Your task to perform on an android device: turn on javascript in the chrome app Image 0: 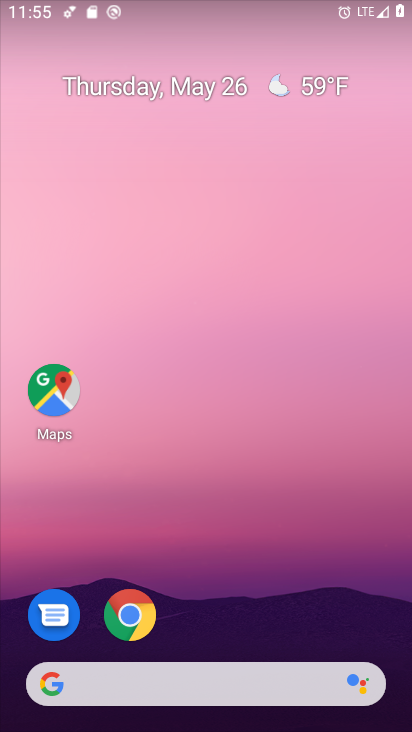
Step 0: drag from (326, 725) to (318, 469)
Your task to perform on an android device: turn on javascript in the chrome app Image 1: 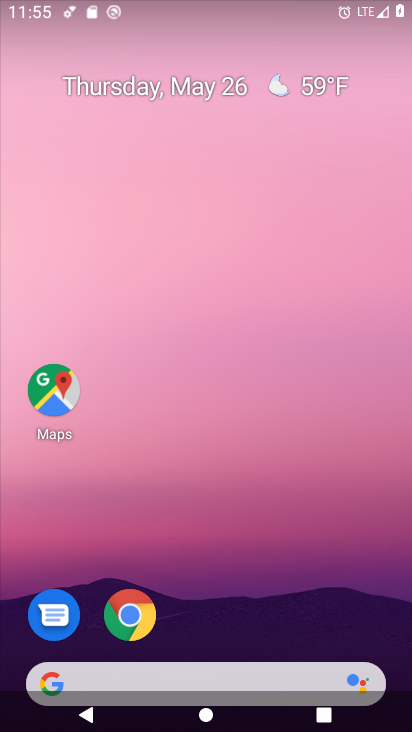
Step 1: drag from (262, 714) to (256, 464)
Your task to perform on an android device: turn on javascript in the chrome app Image 2: 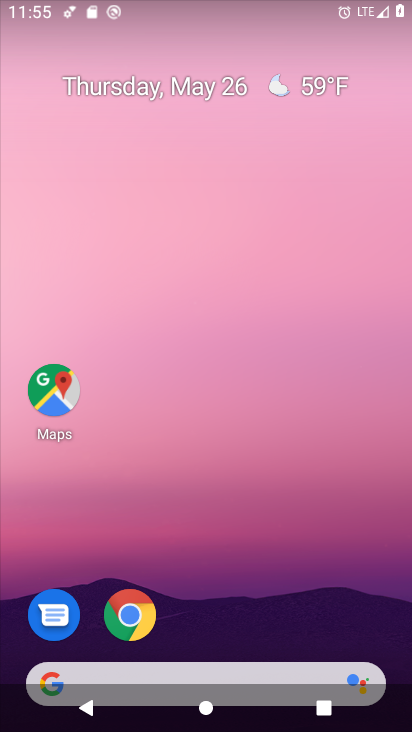
Step 2: drag from (267, 718) to (258, 448)
Your task to perform on an android device: turn on javascript in the chrome app Image 3: 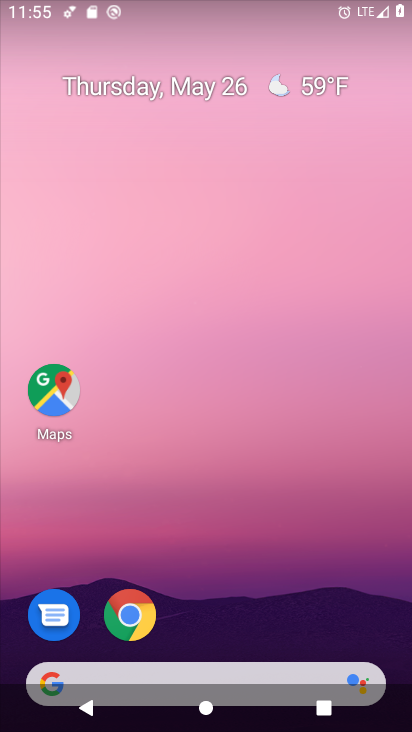
Step 3: drag from (273, 723) to (214, 391)
Your task to perform on an android device: turn on javascript in the chrome app Image 4: 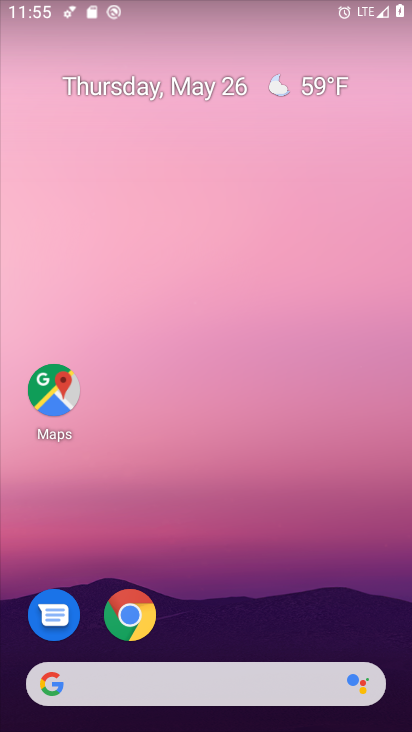
Step 4: drag from (258, 691) to (266, 446)
Your task to perform on an android device: turn on javascript in the chrome app Image 5: 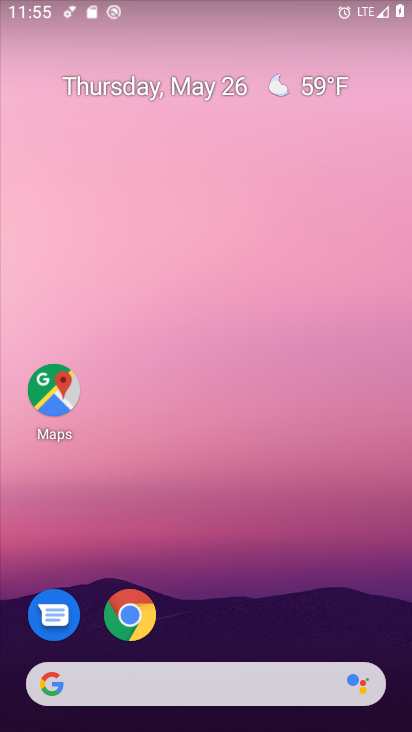
Step 5: drag from (256, 711) to (267, 355)
Your task to perform on an android device: turn on javascript in the chrome app Image 6: 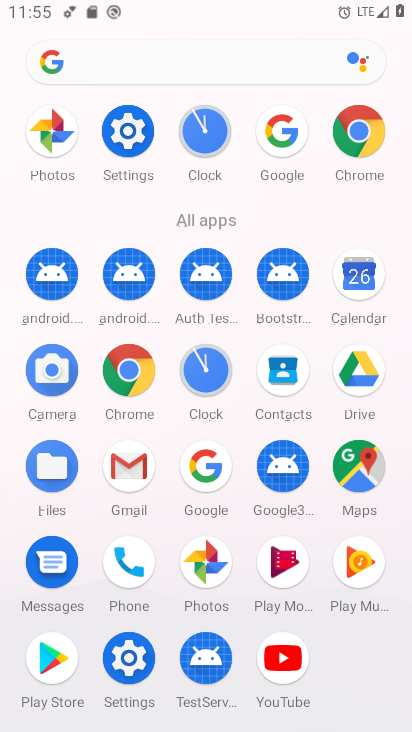
Step 6: click (352, 137)
Your task to perform on an android device: turn on javascript in the chrome app Image 7: 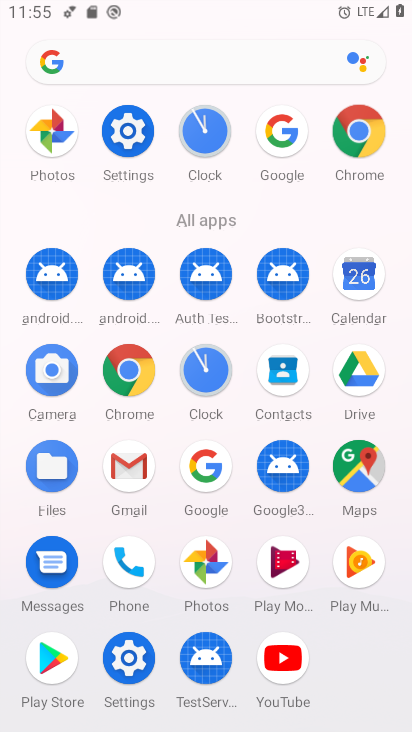
Step 7: click (359, 132)
Your task to perform on an android device: turn on javascript in the chrome app Image 8: 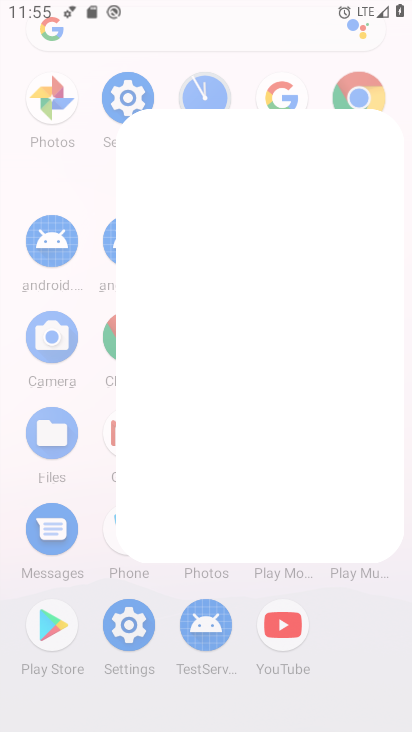
Step 8: click (359, 132)
Your task to perform on an android device: turn on javascript in the chrome app Image 9: 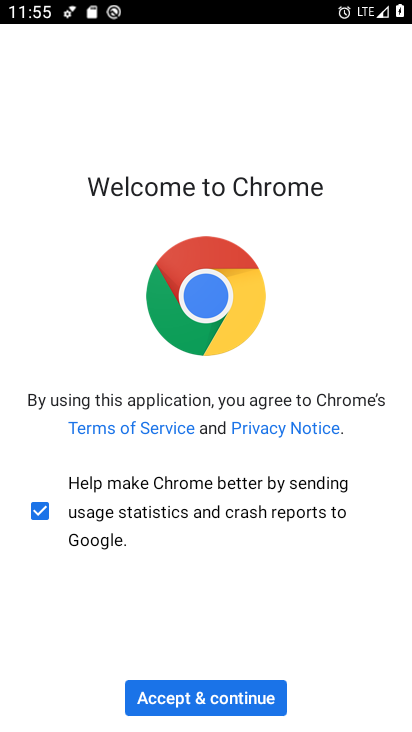
Step 9: click (215, 693)
Your task to perform on an android device: turn on javascript in the chrome app Image 10: 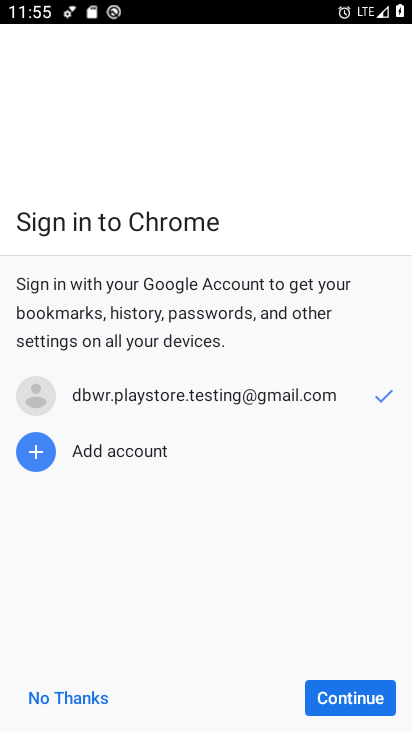
Step 10: click (216, 694)
Your task to perform on an android device: turn on javascript in the chrome app Image 11: 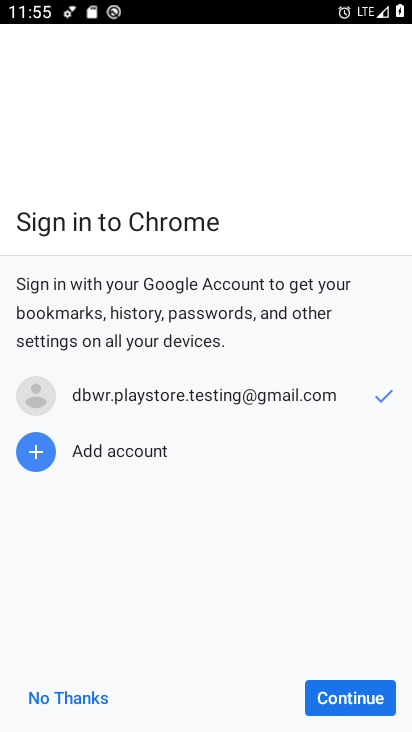
Step 11: click (219, 687)
Your task to perform on an android device: turn on javascript in the chrome app Image 12: 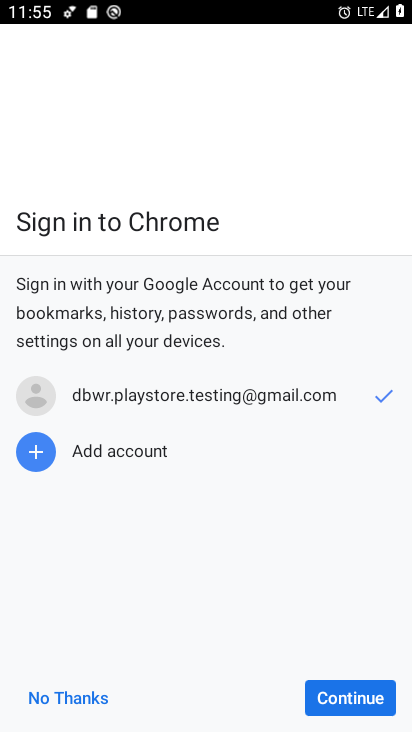
Step 12: click (340, 683)
Your task to perform on an android device: turn on javascript in the chrome app Image 13: 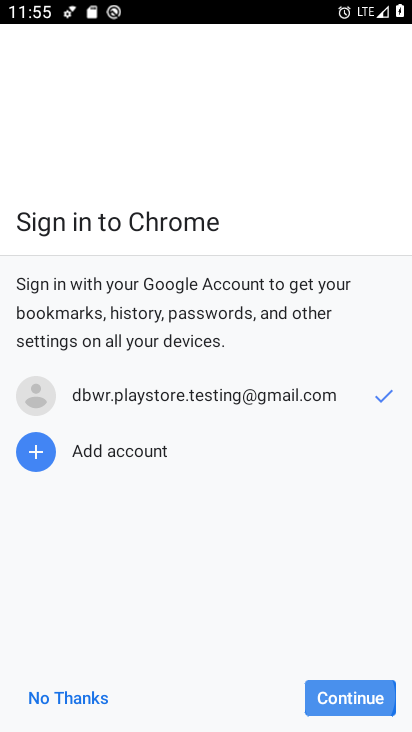
Step 13: click (342, 681)
Your task to perform on an android device: turn on javascript in the chrome app Image 14: 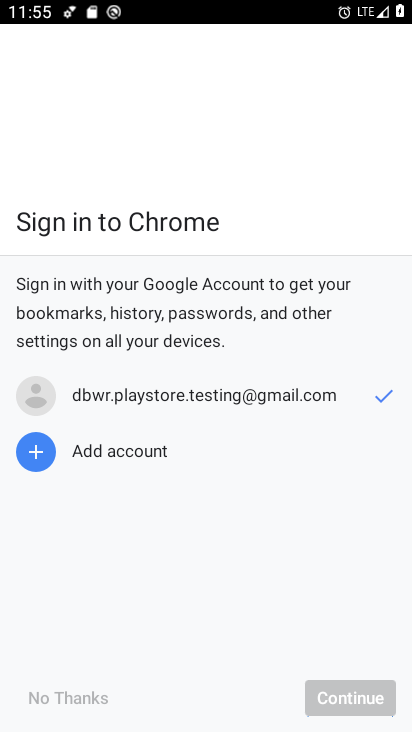
Step 14: click (343, 680)
Your task to perform on an android device: turn on javascript in the chrome app Image 15: 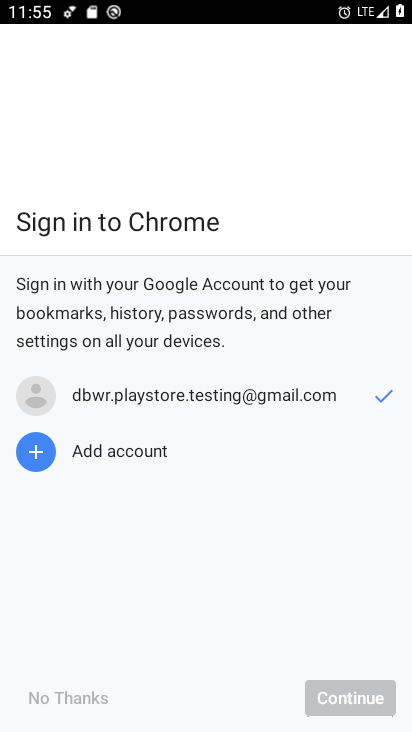
Step 15: click (344, 687)
Your task to perform on an android device: turn on javascript in the chrome app Image 16: 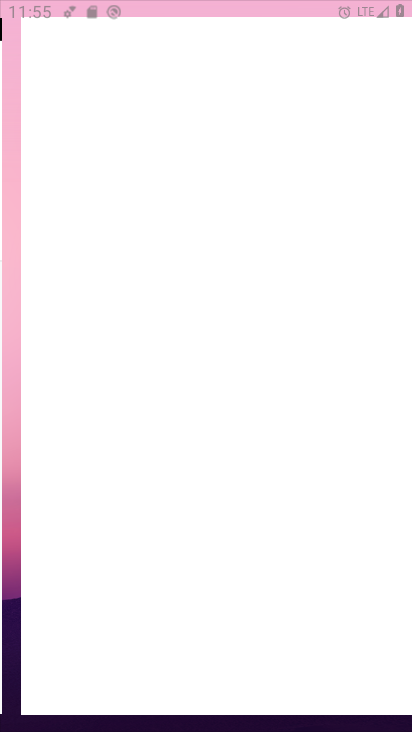
Step 16: click (347, 694)
Your task to perform on an android device: turn on javascript in the chrome app Image 17: 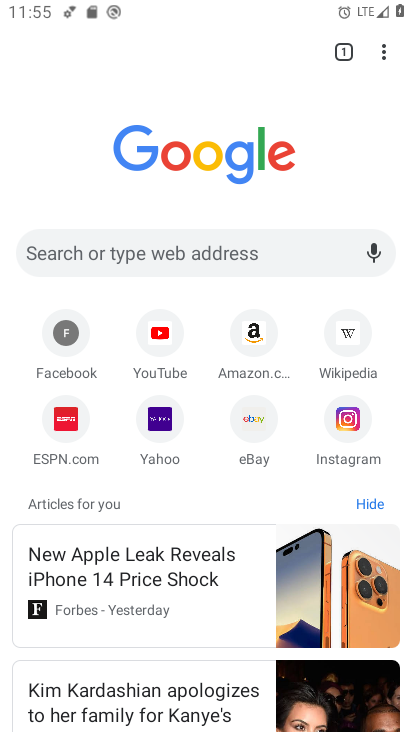
Step 17: drag from (384, 59) to (192, 439)
Your task to perform on an android device: turn on javascript in the chrome app Image 18: 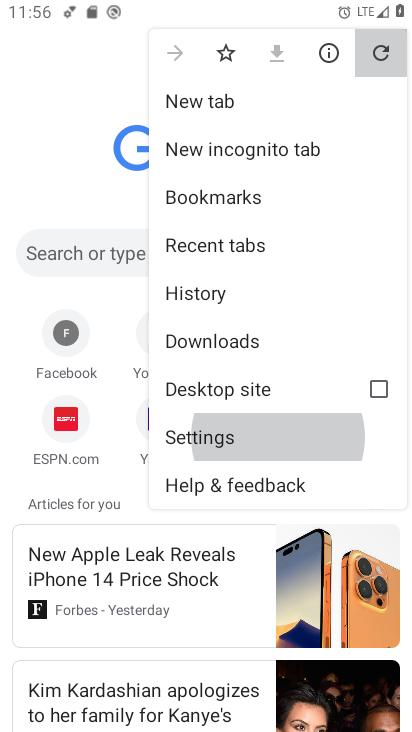
Step 18: click (191, 440)
Your task to perform on an android device: turn on javascript in the chrome app Image 19: 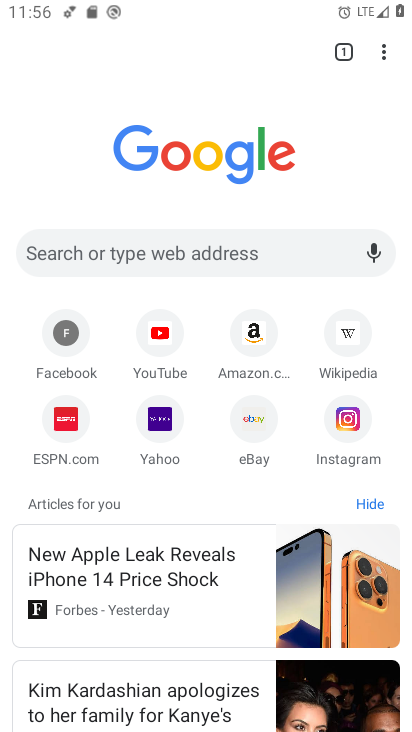
Step 19: click (191, 440)
Your task to perform on an android device: turn on javascript in the chrome app Image 20: 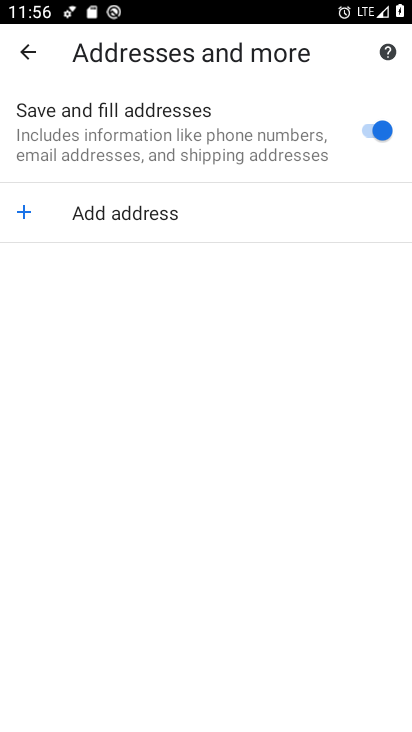
Step 20: click (36, 54)
Your task to perform on an android device: turn on javascript in the chrome app Image 21: 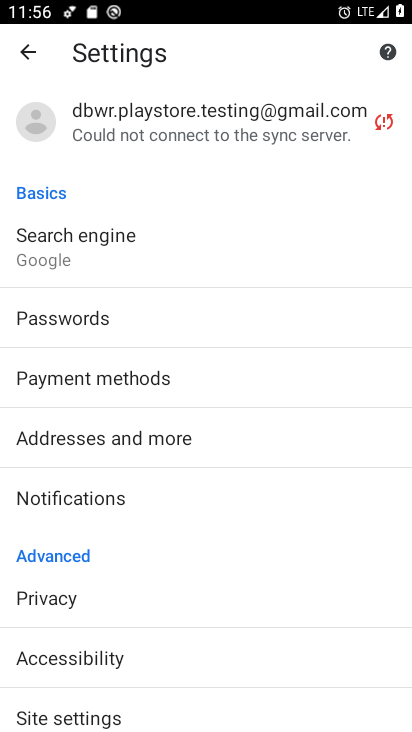
Step 21: drag from (104, 604) to (136, 341)
Your task to perform on an android device: turn on javascript in the chrome app Image 22: 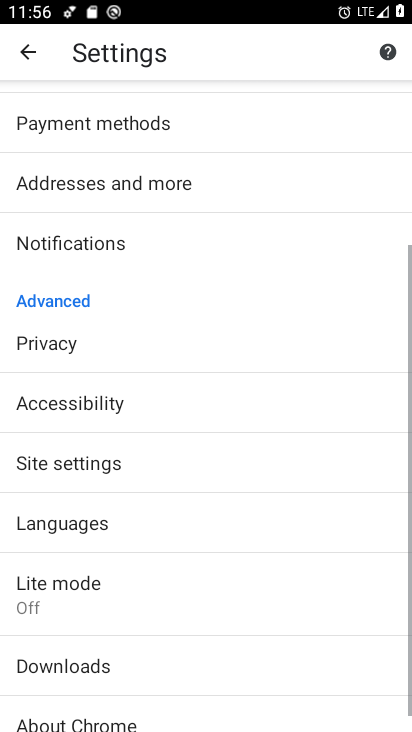
Step 22: drag from (136, 524) to (136, 104)
Your task to perform on an android device: turn on javascript in the chrome app Image 23: 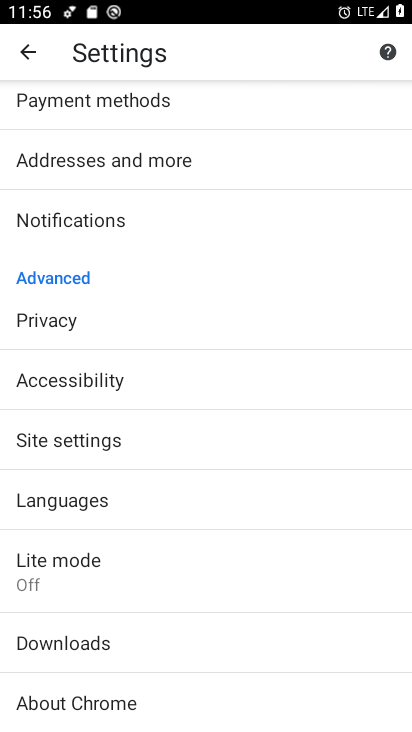
Step 23: click (58, 441)
Your task to perform on an android device: turn on javascript in the chrome app Image 24: 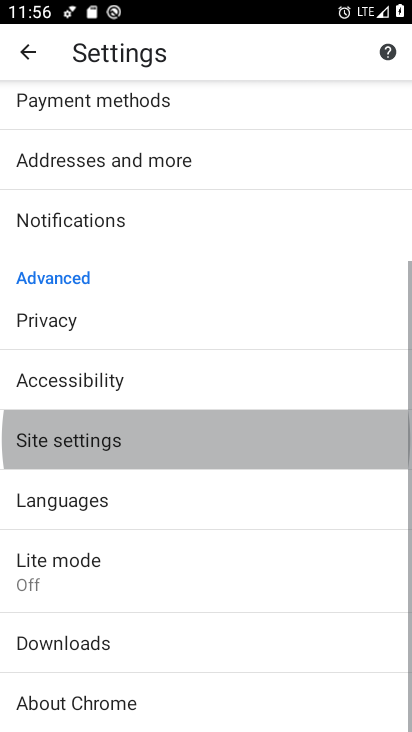
Step 24: click (57, 441)
Your task to perform on an android device: turn on javascript in the chrome app Image 25: 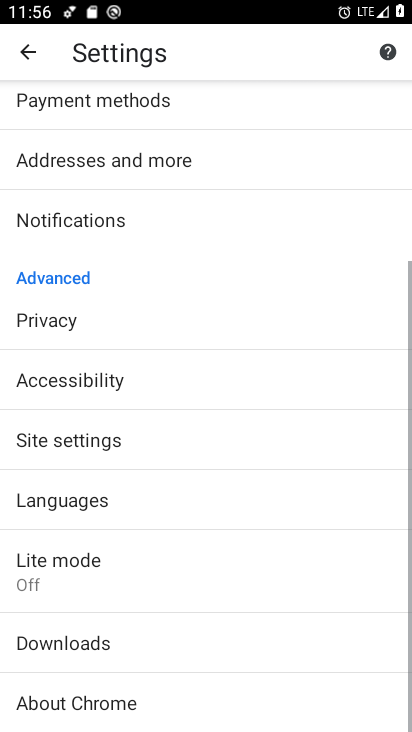
Step 25: click (57, 441)
Your task to perform on an android device: turn on javascript in the chrome app Image 26: 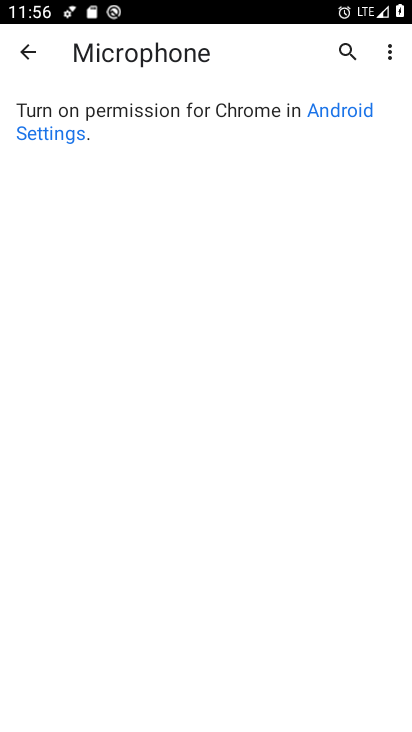
Step 26: click (27, 61)
Your task to perform on an android device: turn on javascript in the chrome app Image 27: 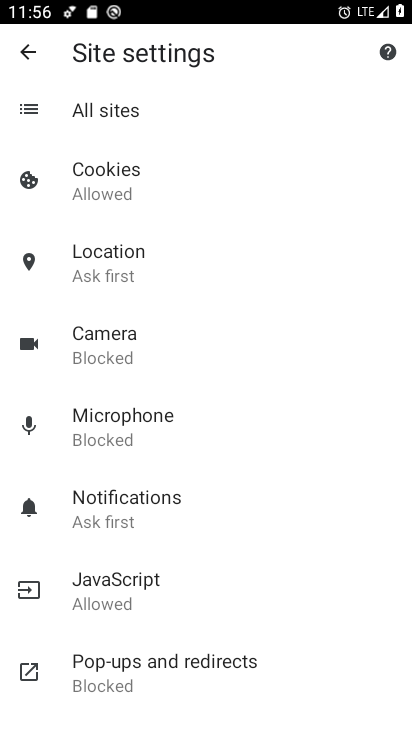
Step 27: click (92, 587)
Your task to perform on an android device: turn on javascript in the chrome app Image 28: 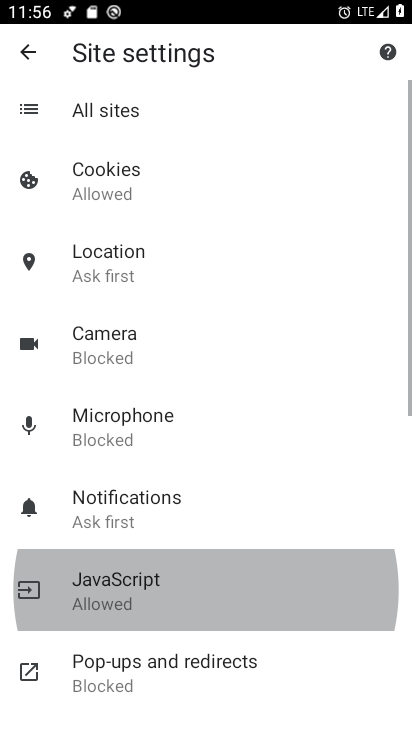
Step 28: click (93, 587)
Your task to perform on an android device: turn on javascript in the chrome app Image 29: 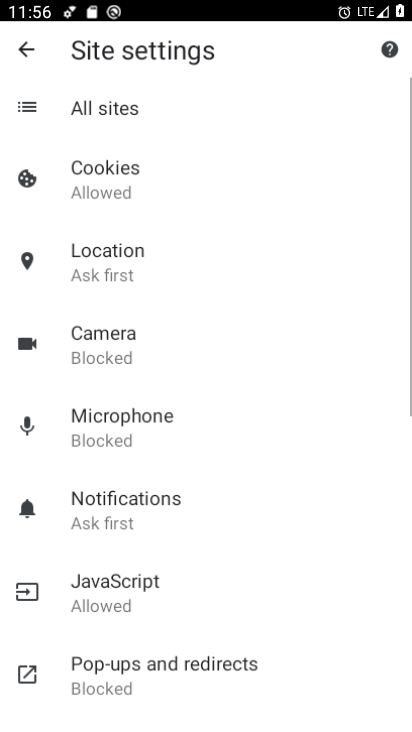
Step 29: click (98, 581)
Your task to perform on an android device: turn on javascript in the chrome app Image 30: 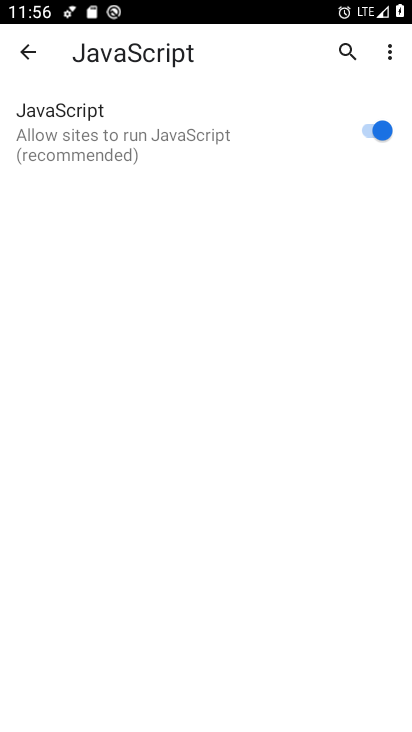
Step 30: task complete